Your task to perform on an android device: set an alarm Image 0: 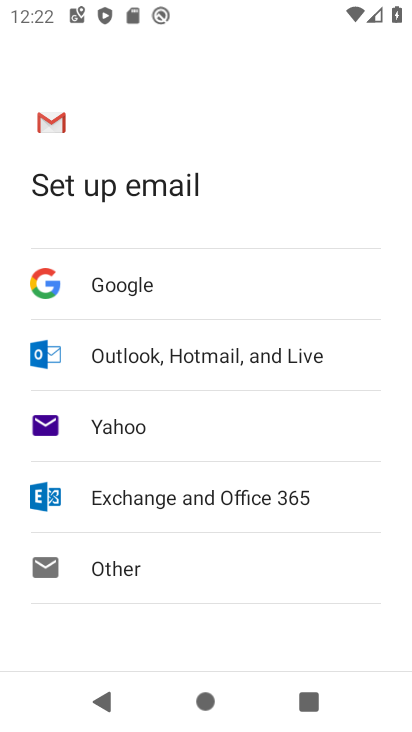
Step 0: press home button
Your task to perform on an android device: set an alarm Image 1: 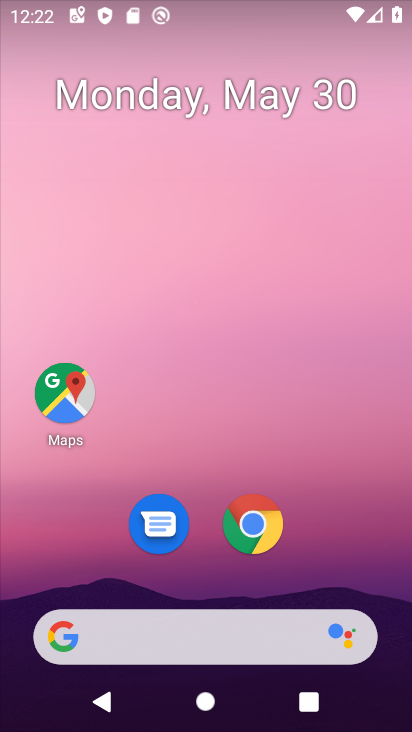
Step 1: drag from (213, 468) to (223, 19)
Your task to perform on an android device: set an alarm Image 2: 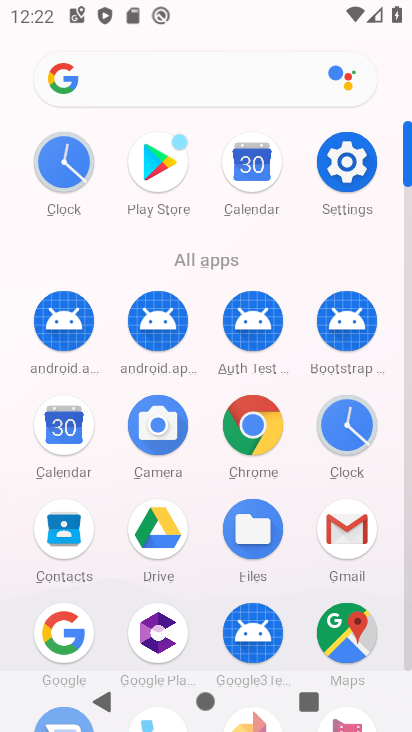
Step 2: click (73, 166)
Your task to perform on an android device: set an alarm Image 3: 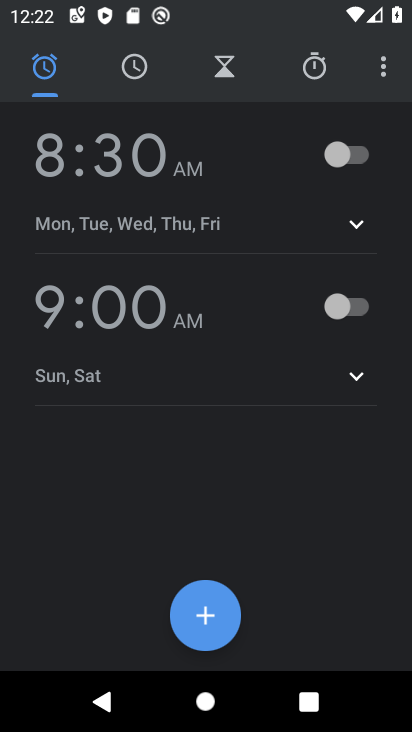
Step 3: click (200, 624)
Your task to perform on an android device: set an alarm Image 4: 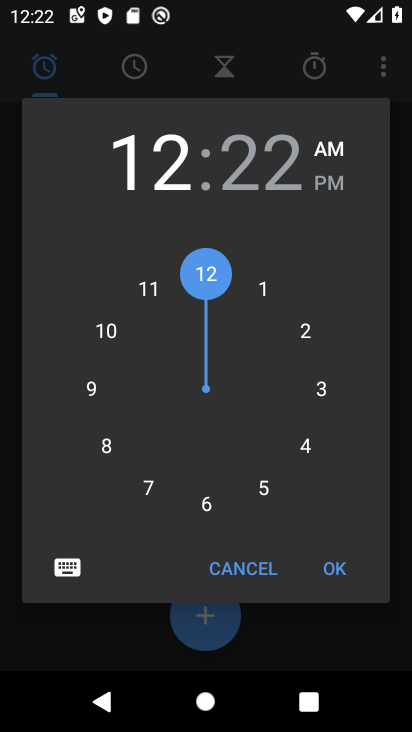
Step 4: click (255, 175)
Your task to perform on an android device: set an alarm Image 5: 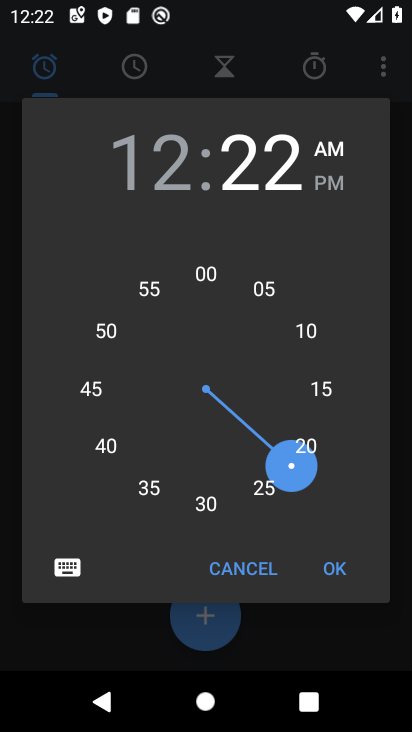
Step 5: click (202, 500)
Your task to perform on an android device: set an alarm Image 6: 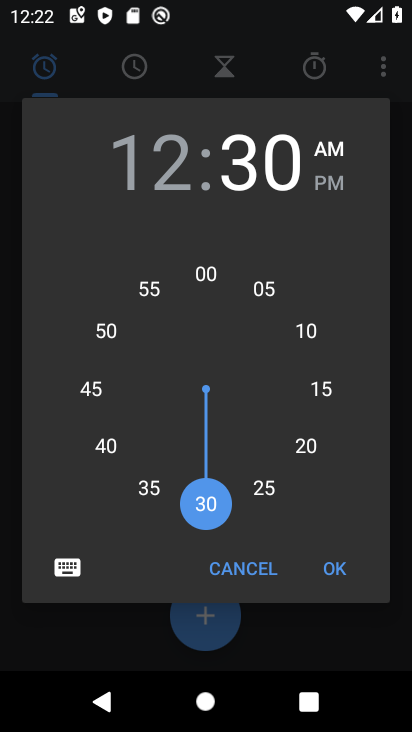
Step 6: click (338, 565)
Your task to perform on an android device: set an alarm Image 7: 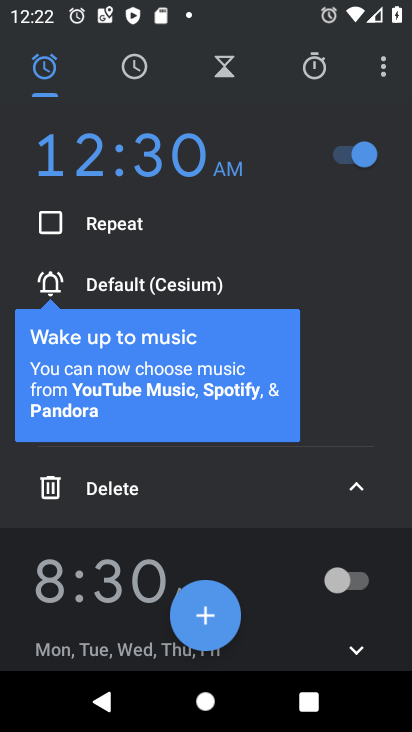
Step 7: task complete